Your task to perform on an android device: Open Chrome and go to the settings page Image 0: 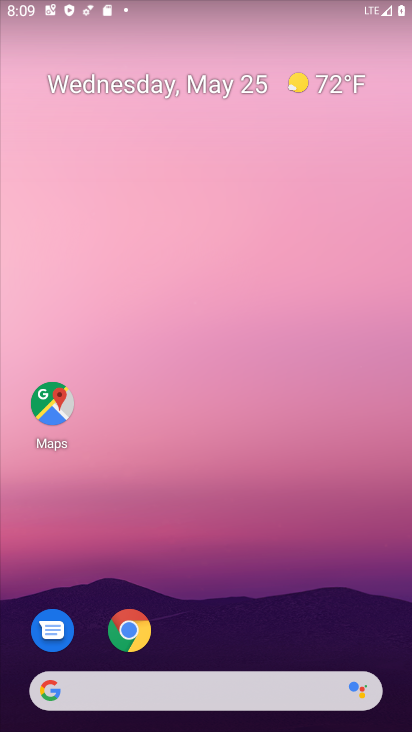
Step 0: click (140, 639)
Your task to perform on an android device: Open Chrome and go to the settings page Image 1: 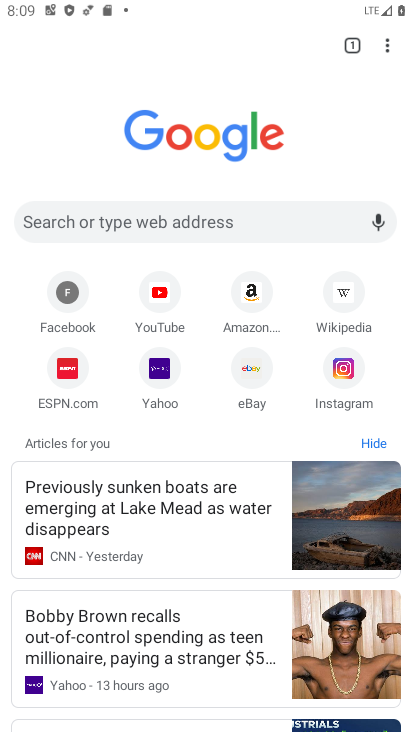
Step 1: task complete